Your task to perform on an android device: choose inbox layout in the gmail app Image 0: 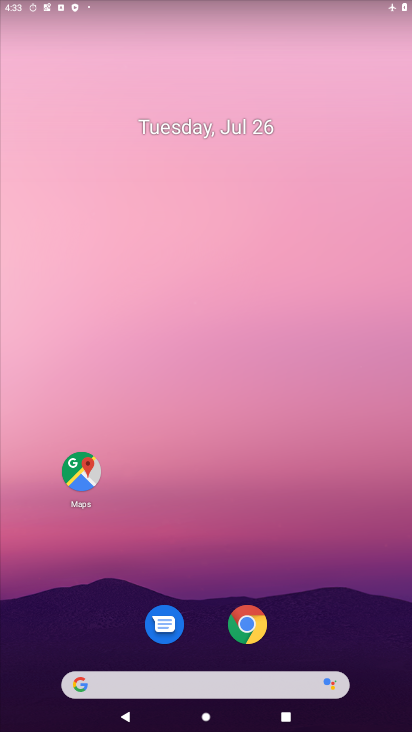
Step 0: drag from (281, 683) to (360, 41)
Your task to perform on an android device: choose inbox layout in the gmail app Image 1: 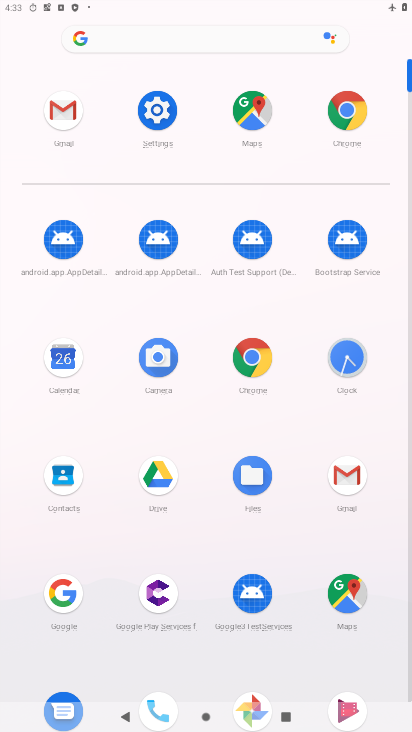
Step 1: click (351, 461)
Your task to perform on an android device: choose inbox layout in the gmail app Image 2: 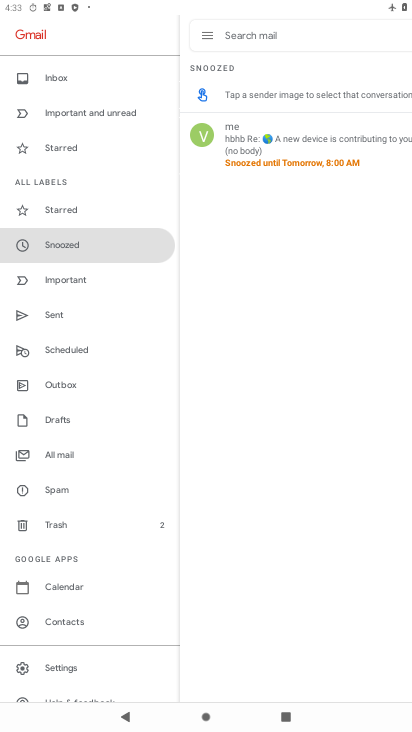
Step 2: click (56, 669)
Your task to perform on an android device: choose inbox layout in the gmail app Image 3: 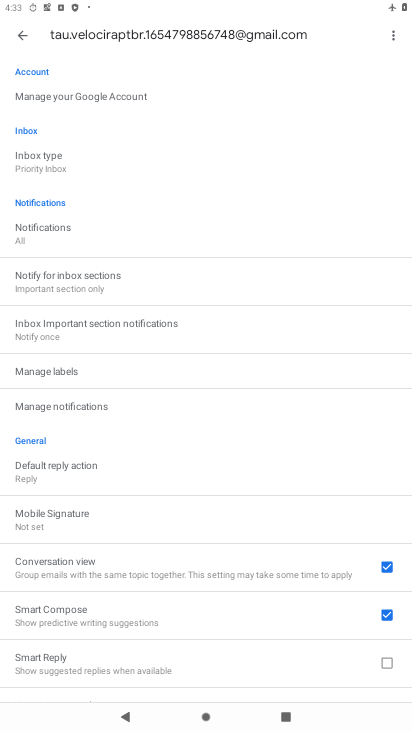
Step 3: click (152, 152)
Your task to perform on an android device: choose inbox layout in the gmail app Image 4: 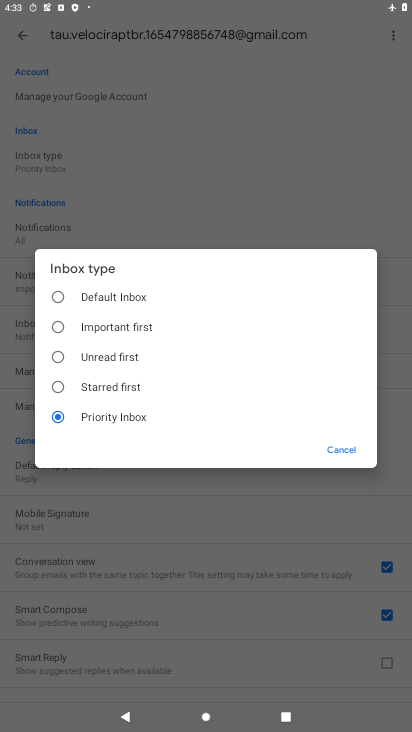
Step 4: click (60, 296)
Your task to perform on an android device: choose inbox layout in the gmail app Image 5: 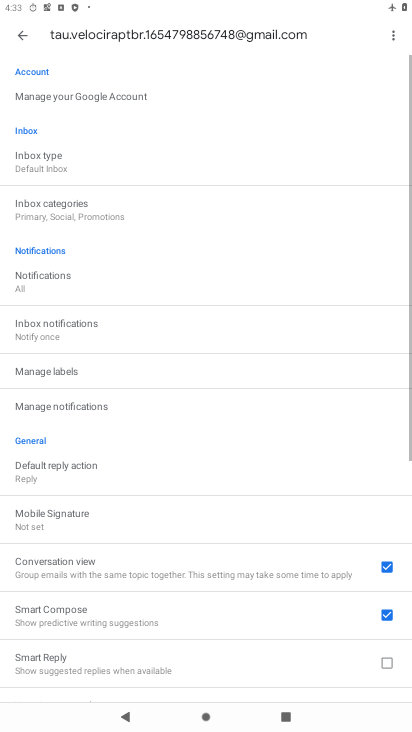
Step 5: task complete